Your task to perform on an android device: What's on my calendar today? Image 0: 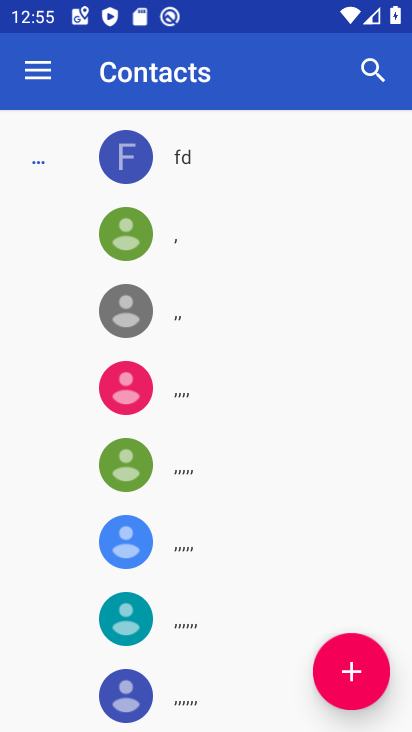
Step 0: press home button
Your task to perform on an android device: What's on my calendar today? Image 1: 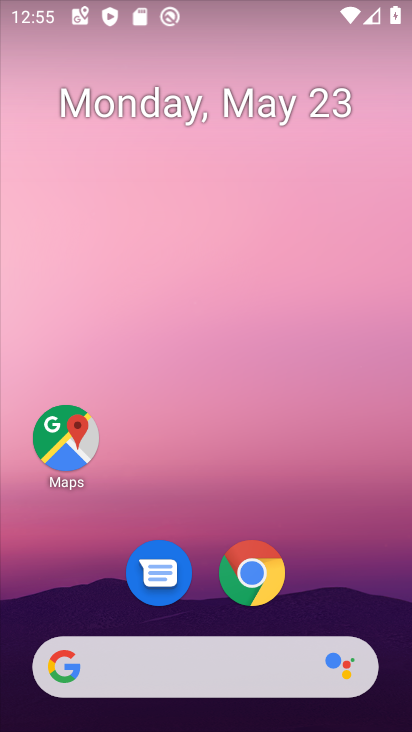
Step 1: drag from (213, 671) to (203, 136)
Your task to perform on an android device: What's on my calendar today? Image 2: 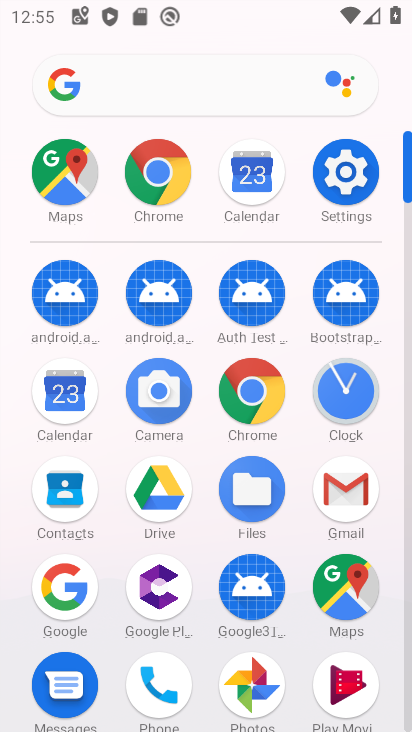
Step 2: click (69, 398)
Your task to perform on an android device: What's on my calendar today? Image 3: 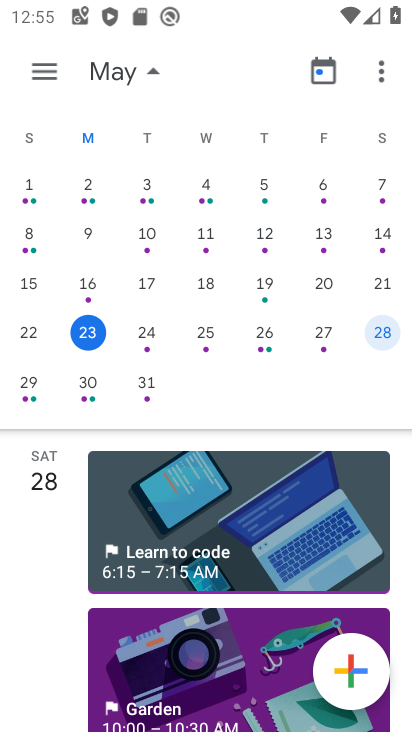
Step 3: click (89, 332)
Your task to perform on an android device: What's on my calendar today? Image 4: 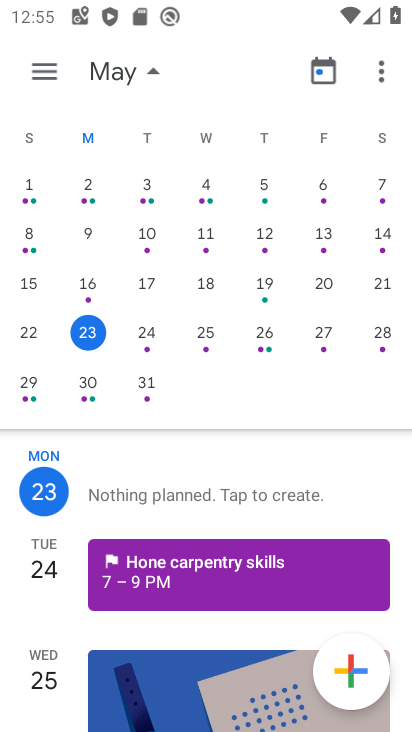
Step 4: task complete